Your task to perform on an android device: Go to sound settings Image 0: 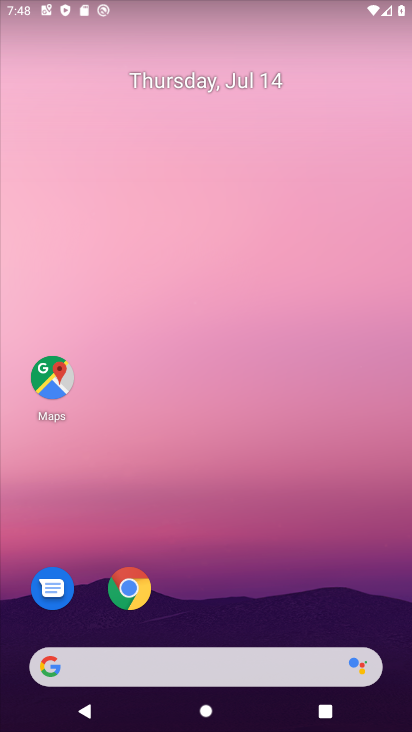
Step 0: drag from (382, 607) to (146, 57)
Your task to perform on an android device: Go to sound settings Image 1: 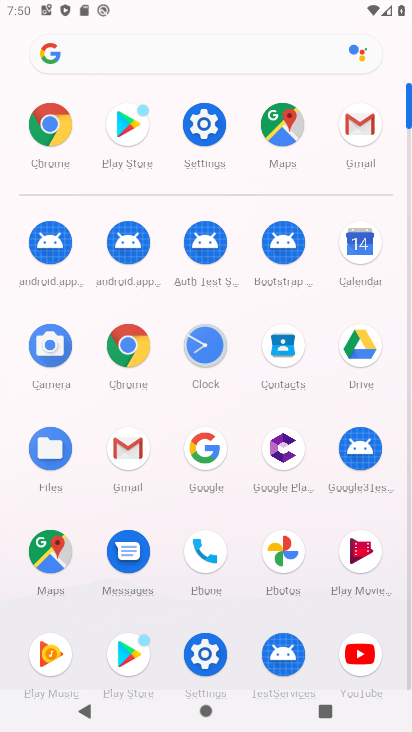
Step 1: click (220, 652)
Your task to perform on an android device: Go to sound settings Image 2: 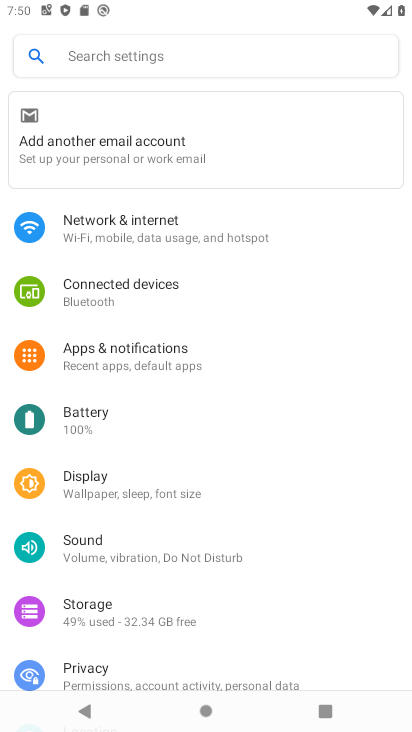
Step 2: click (104, 535)
Your task to perform on an android device: Go to sound settings Image 3: 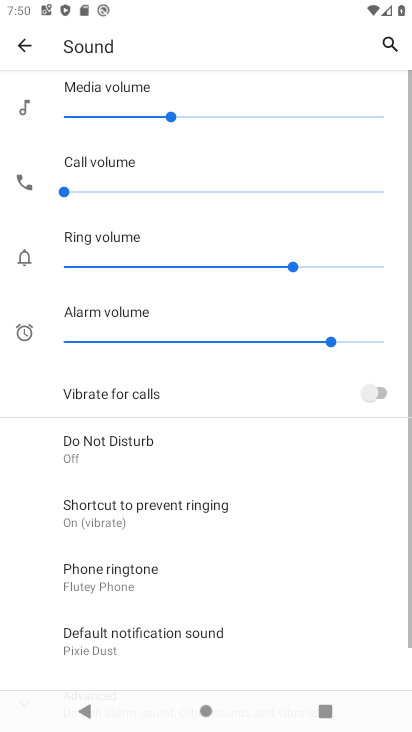
Step 3: task complete